Your task to perform on an android device: install app "Adobe Express: Graphic Design" Image 0: 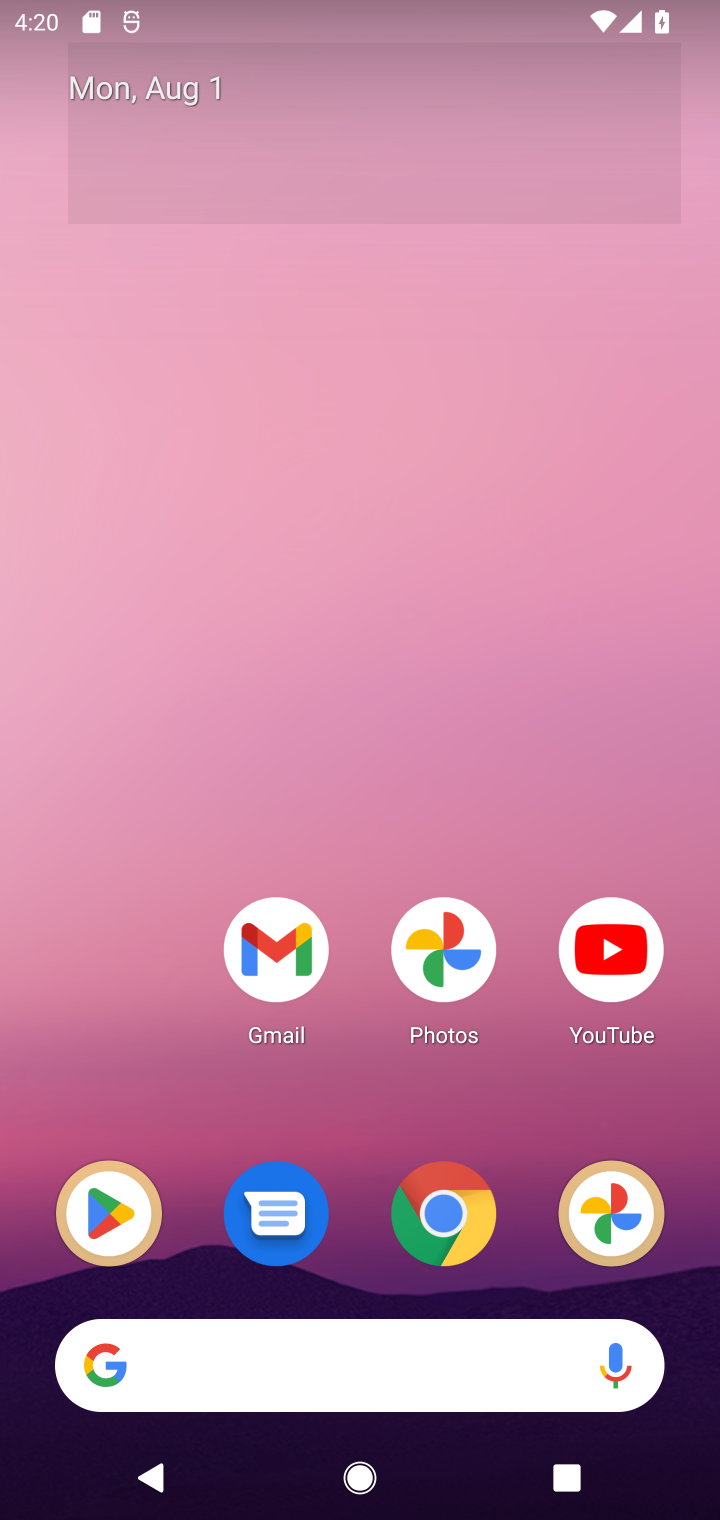
Step 0: drag from (538, 1107) to (620, 9)
Your task to perform on an android device: install app "Adobe Express: Graphic Design" Image 1: 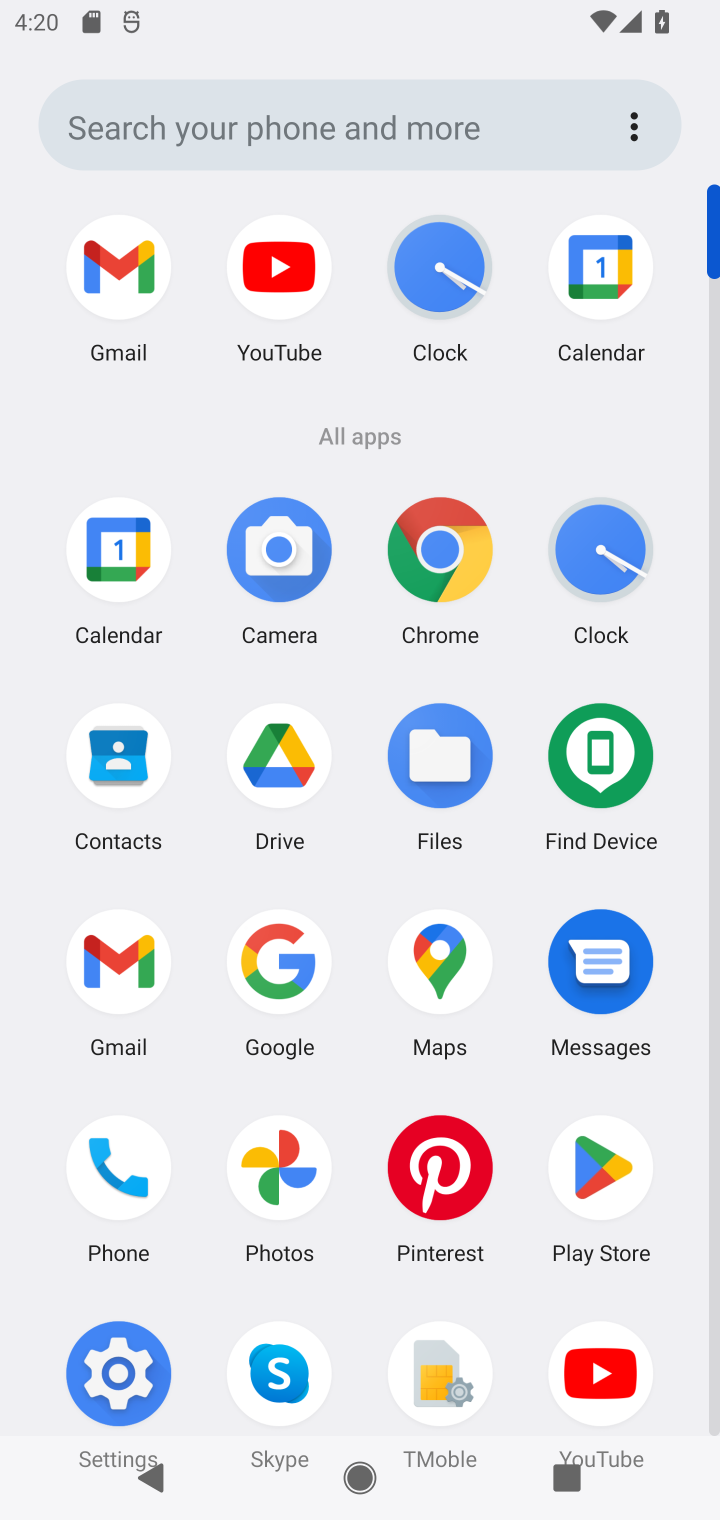
Step 1: drag from (338, 1262) to (464, 436)
Your task to perform on an android device: install app "Adobe Express: Graphic Design" Image 2: 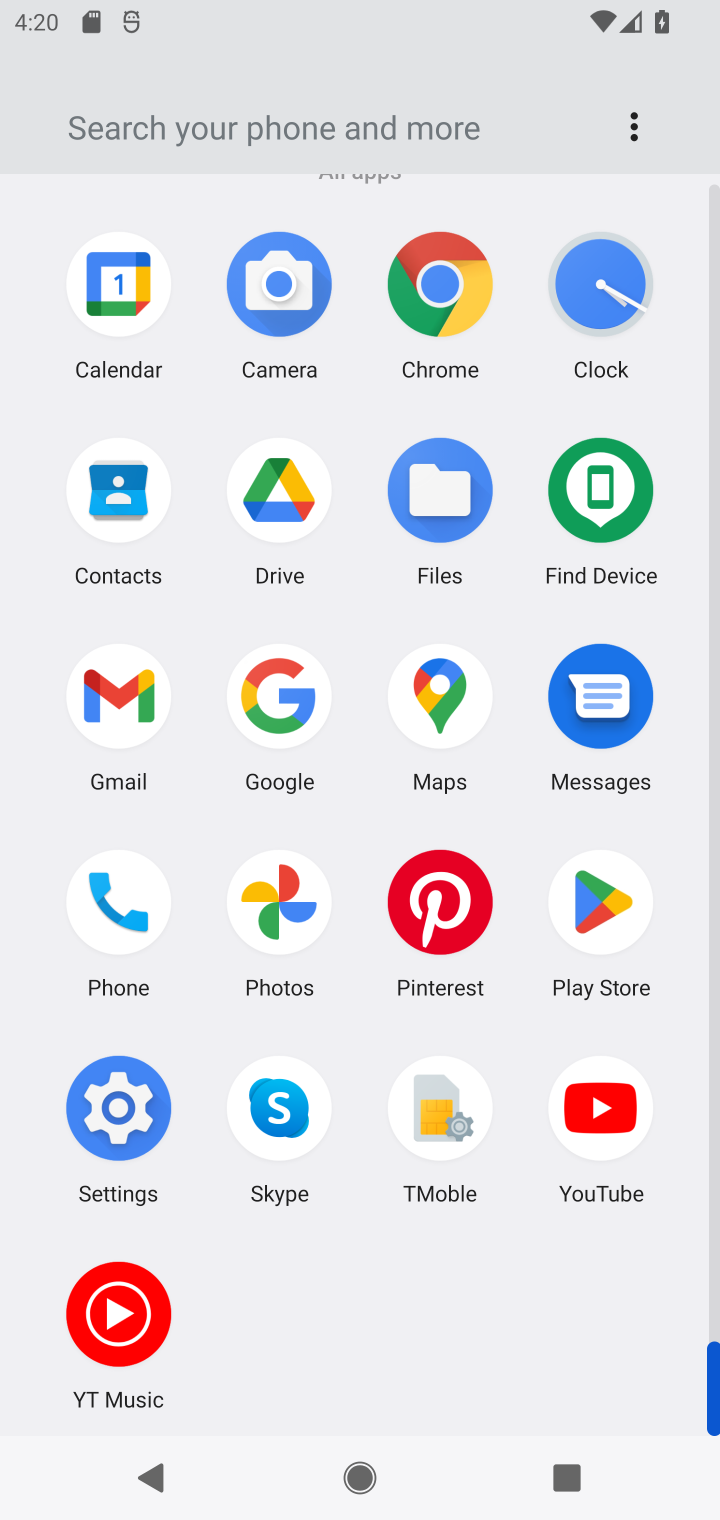
Step 2: drag from (382, 559) to (337, 1188)
Your task to perform on an android device: install app "Adobe Express: Graphic Design" Image 3: 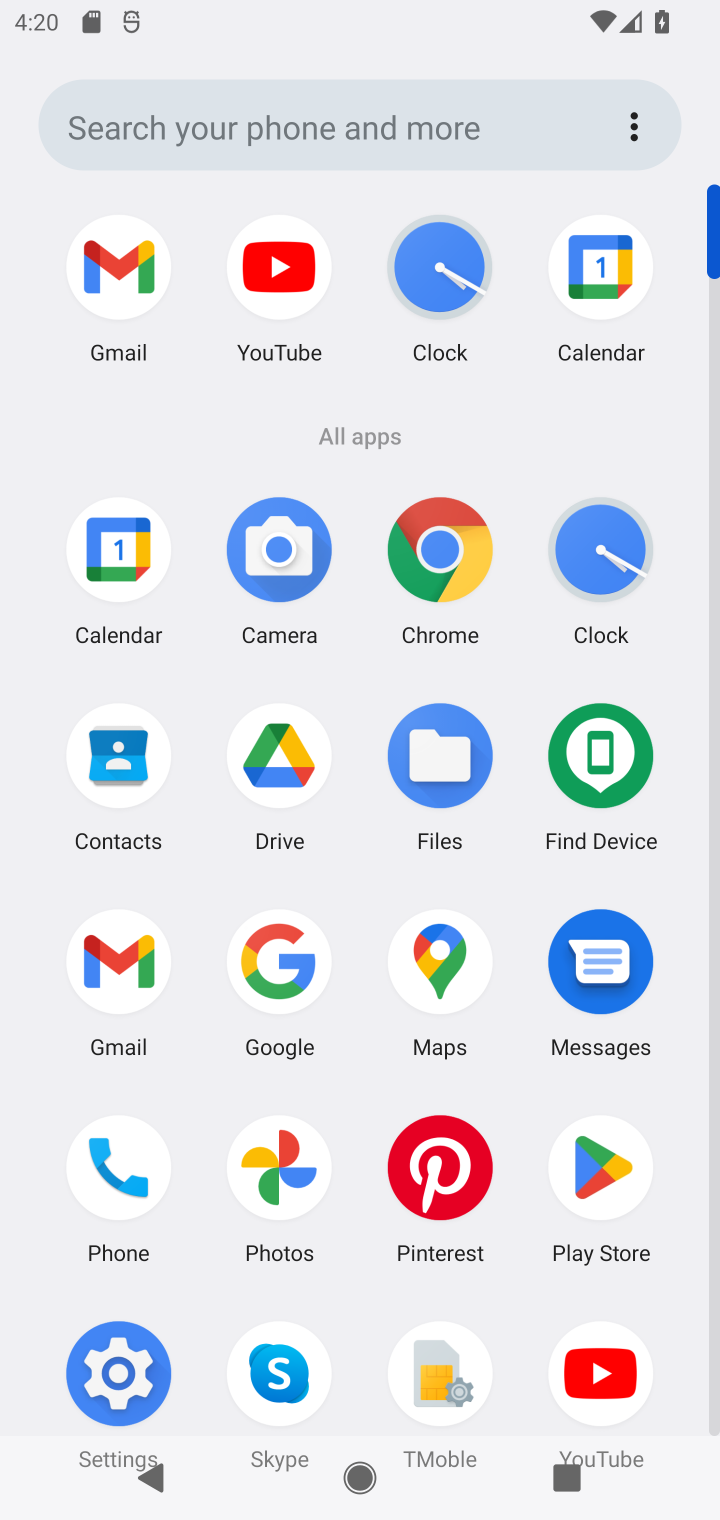
Step 3: click (612, 1196)
Your task to perform on an android device: install app "Adobe Express: Graphic Design" Image 4: 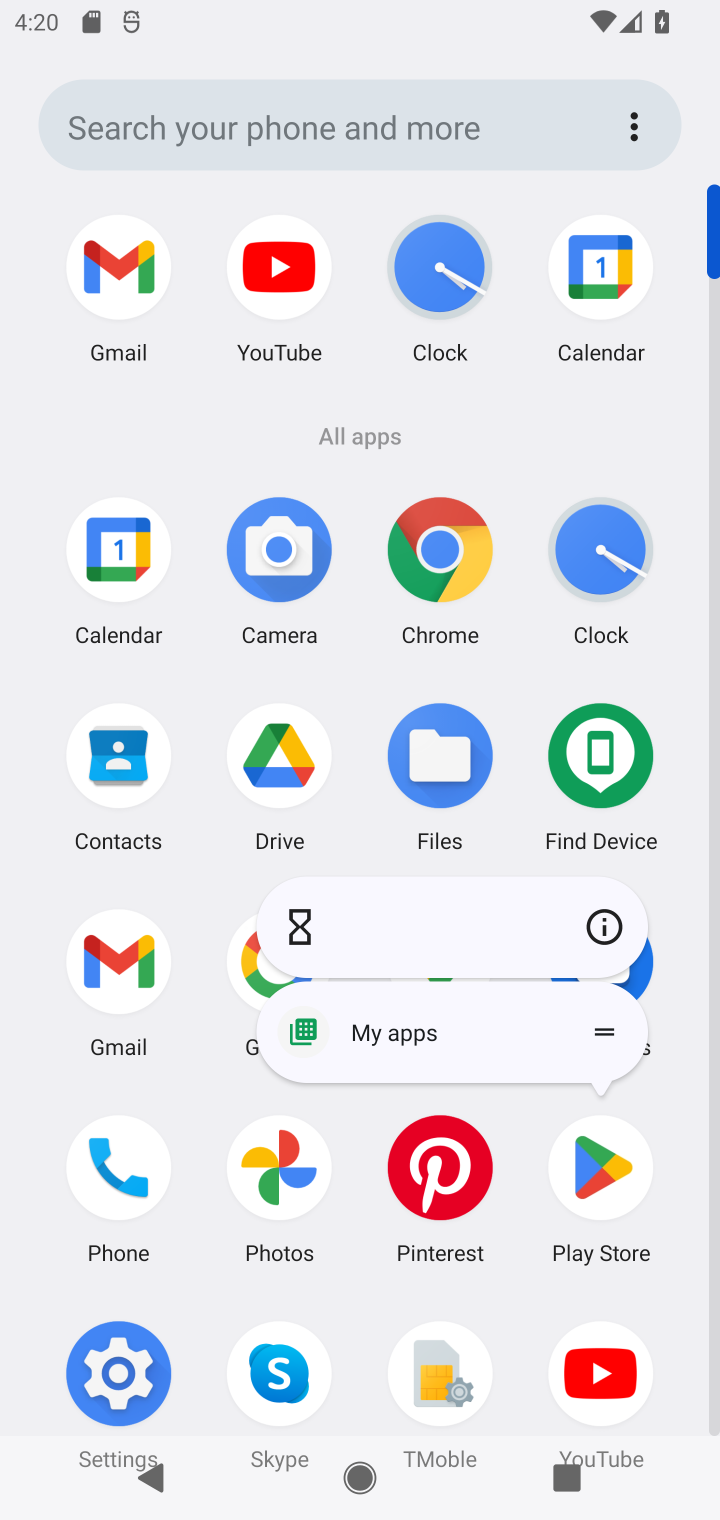
Step 4: click (612, 1196)
Your task to perform on an android device: install app "Adobe Express: Graphic Design" Image 5: 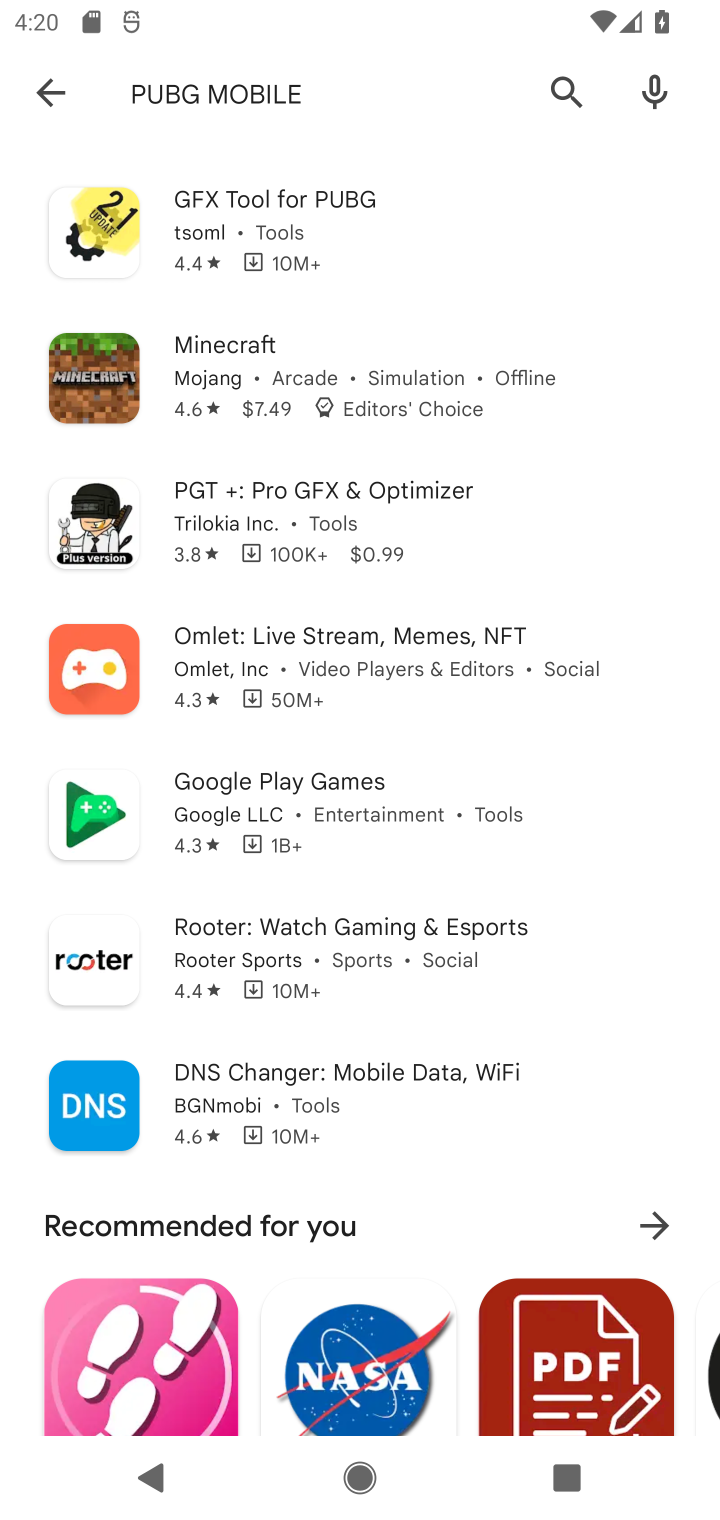
Step 5: click (247, 82)
Your task to perform on an android device: install app "Adobe Express: Graphic Design" Image 6: 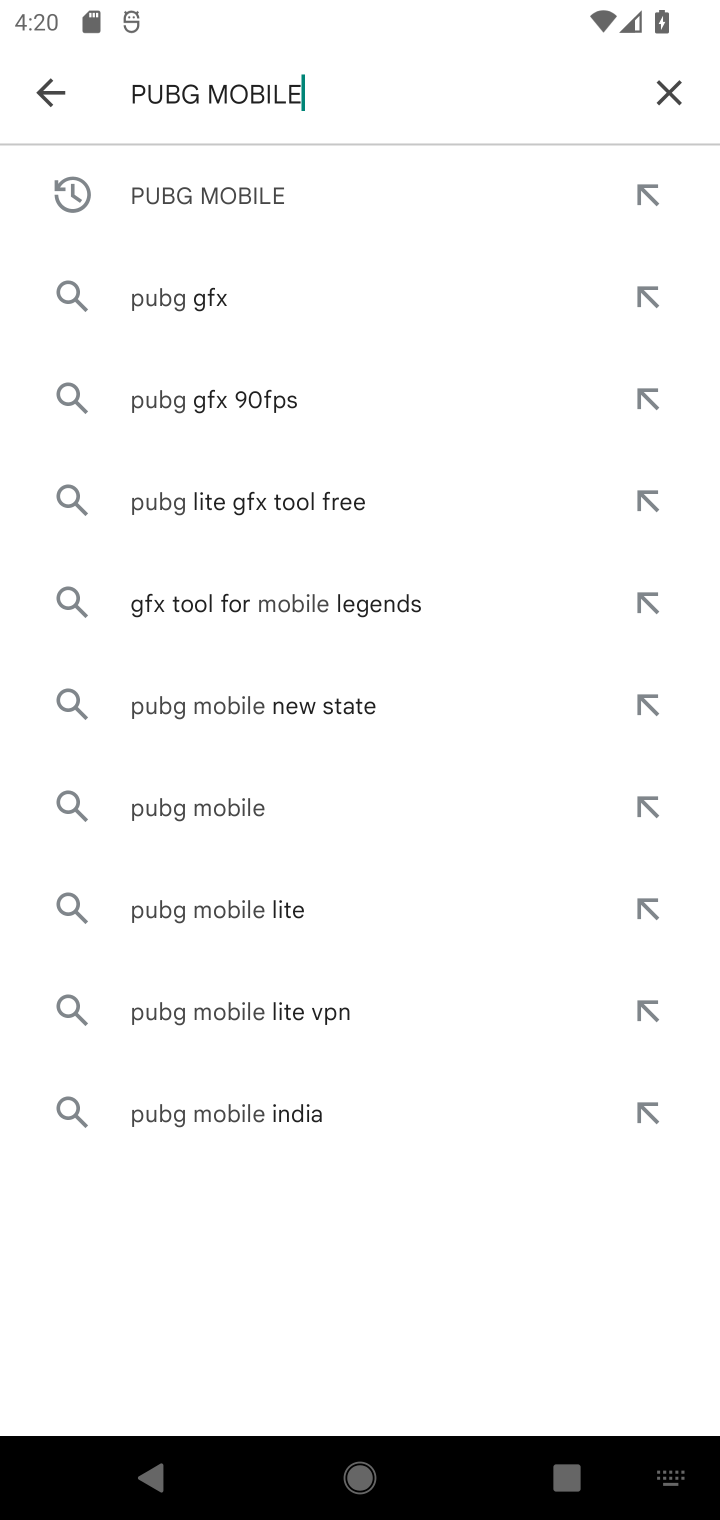
Step 6: click (666, 84)
Your task to perform on an android device: install app "Adobe Express: Graphic Design" Image 7: 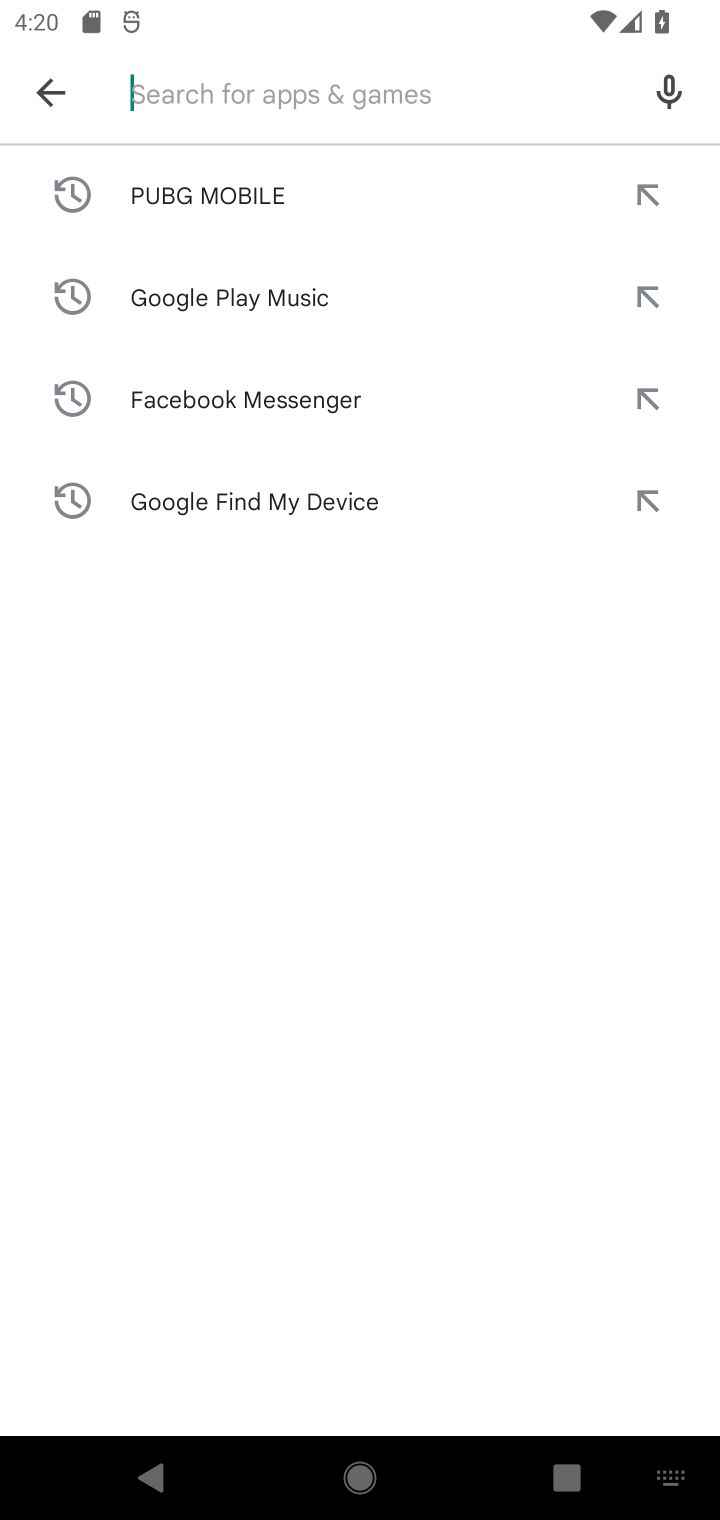
Step 7: type "Adobe Express: Graphic Design"
Your task to perform on an android device: install app "Adobe Express: Graphic Design" Image 8: 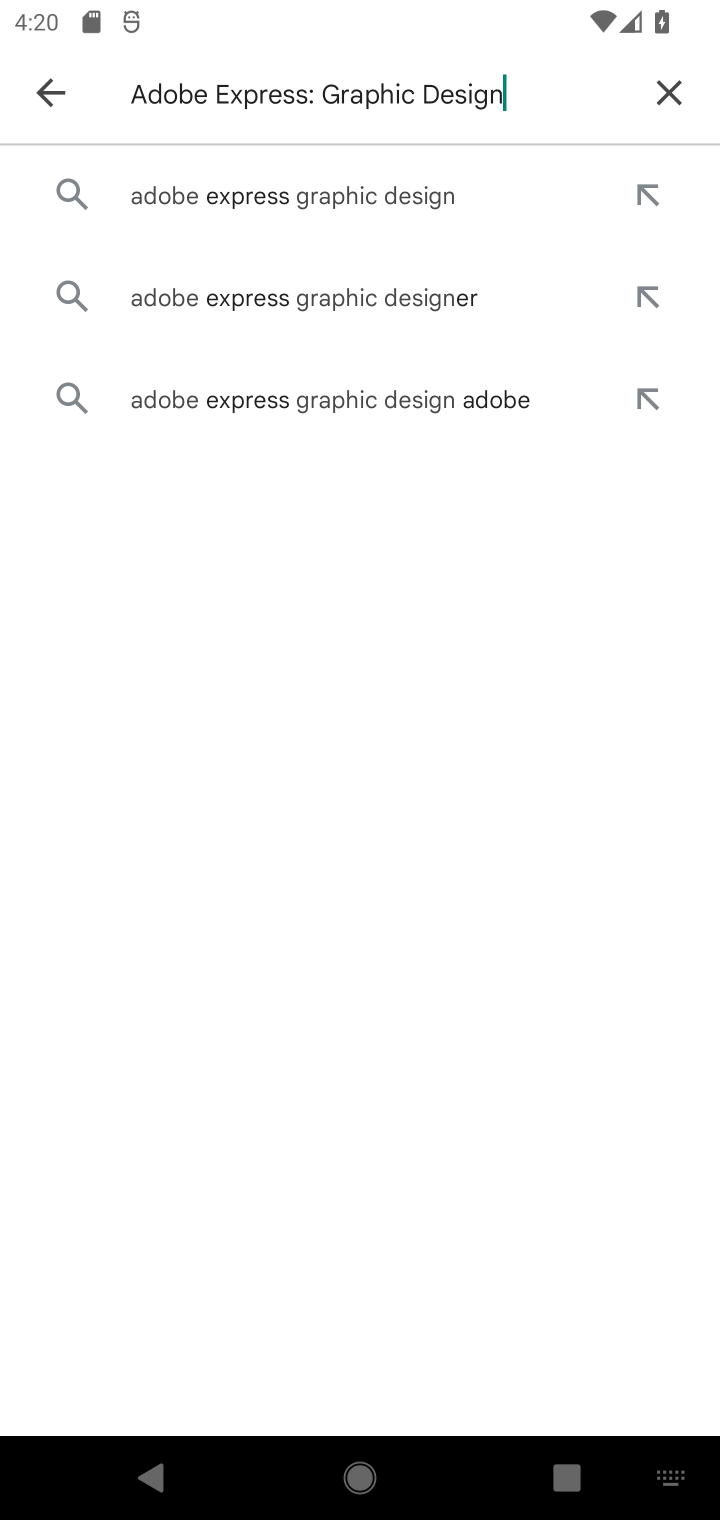
Step 8: press enter
Your task to perform on an android device: install app "Adobe Express: Graphic Design" Image 9: 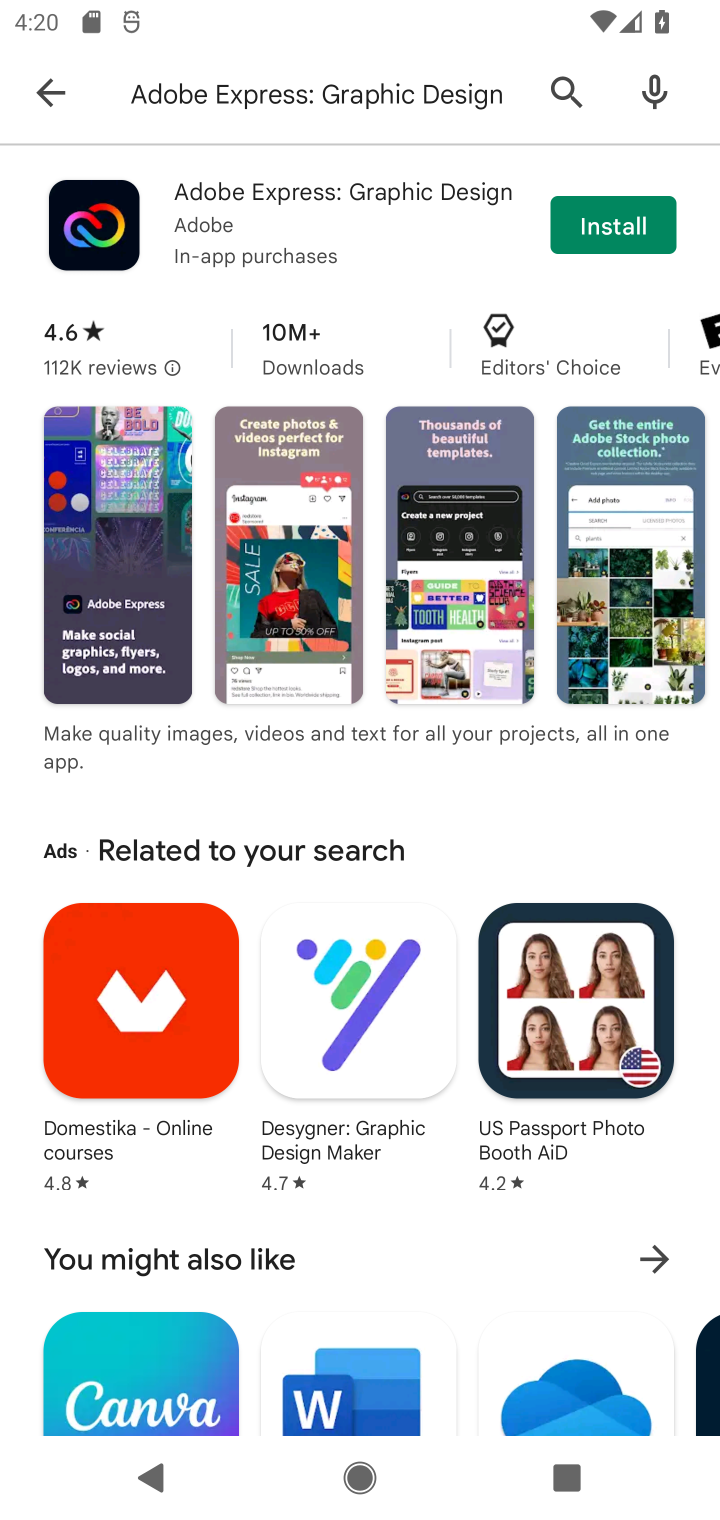
Step 9: click (635, 234)
Your task to perform on an android device: install app "Adobe Express: Graphic Design" Image 10: 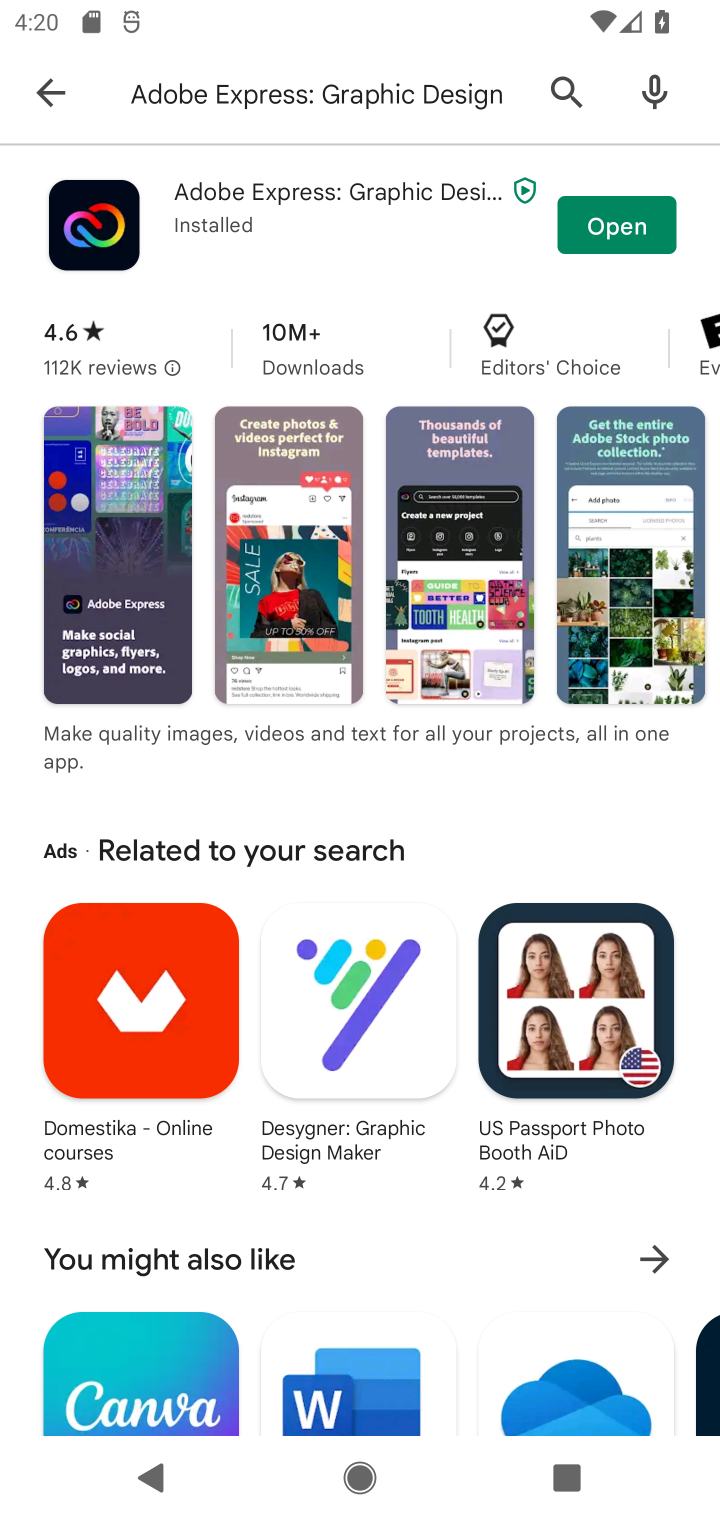
Step 10: task complete